Your task to perform on an android device: add a contact Image 0: 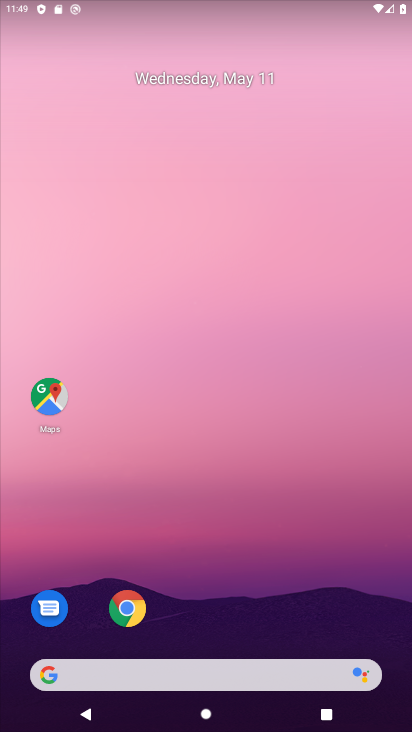
Step 0: drag from (243, 609) to (241, 30)
Your task to perform on an android device: add a contact Image 1: 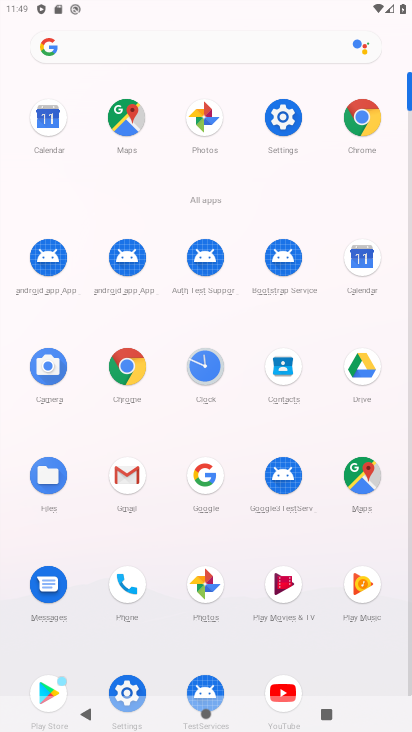
Step 1: click (279, 368)
Your task to perform on an android device: add a contact Image 2: 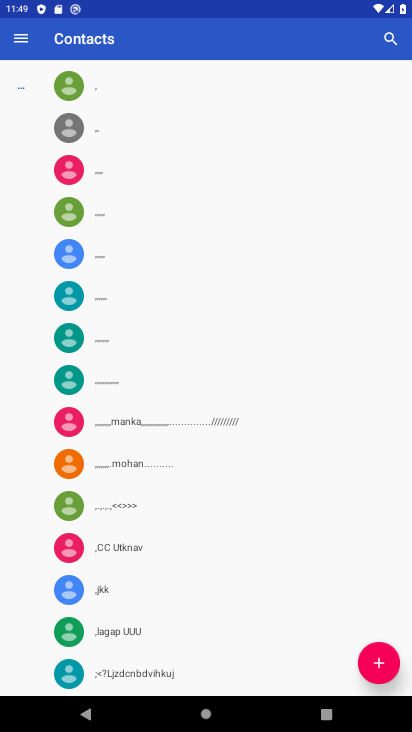
Step 2: click (377, 666)
Your task to perform on an android device: add a contact Image 3: 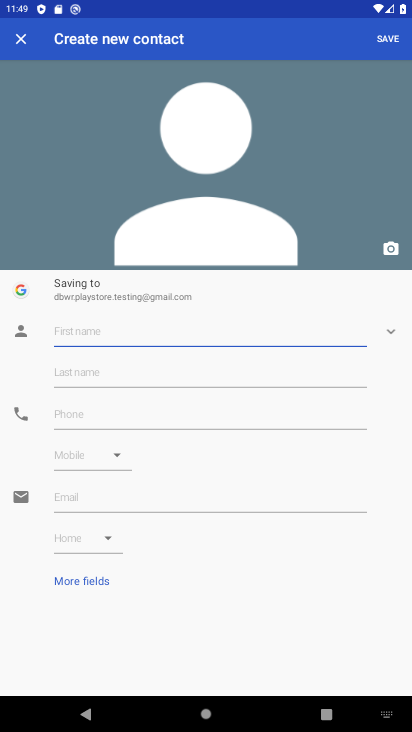
Step 3: click (115, 314)
Your task to perform on an android device: add a contact Image 4: 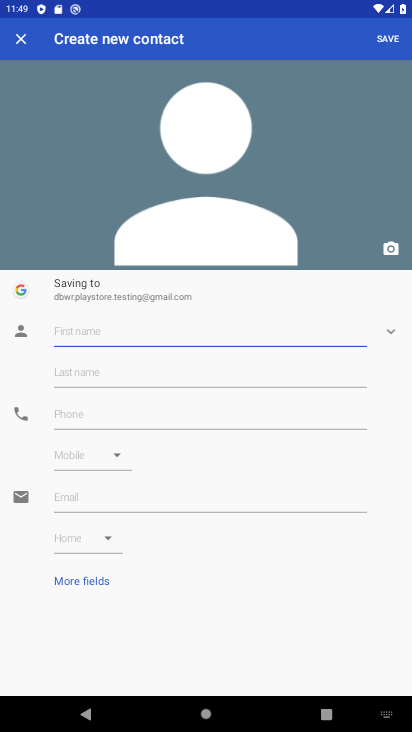
Step 4: type "nimmy"
Your task to perform on an android device: add a contact Image 5: 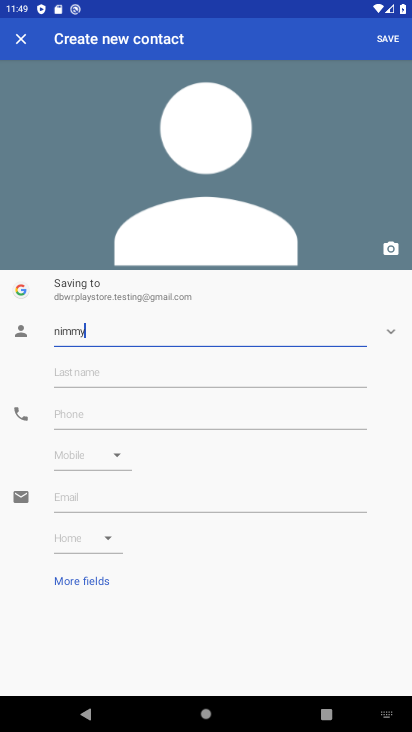
Step 5: click (106, 408)
Your task to perform on an android device: add a contact Image 6: 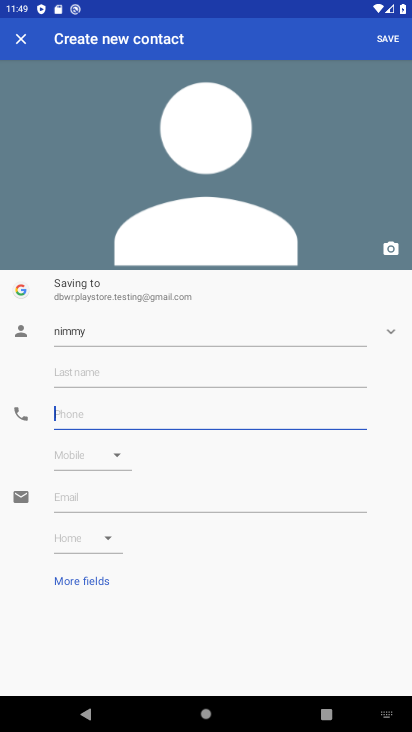
Step 6: type "98765544433"
Your task to perform on an android device: add a contact Image 7: 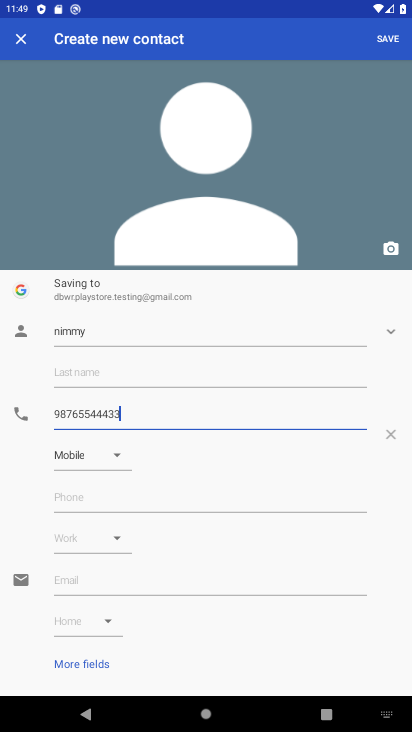
Step 7: click (384, 34)
Your task to perform on an android device: add a contact Image 8: 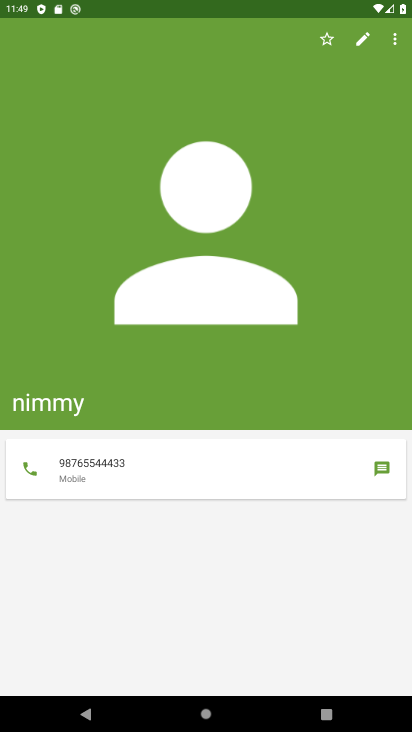
Step 8: task complete